Your task to perform on an android device: Open calendar and show me the second week of next month Image 0: 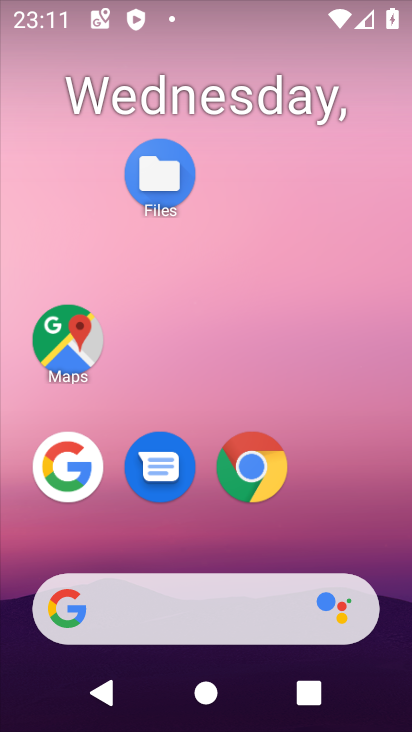
Step 0: drag from (186, 568) to (264, 99)
Your task to perform on an android device: Open calendar and show me the second week of next month Image 1: 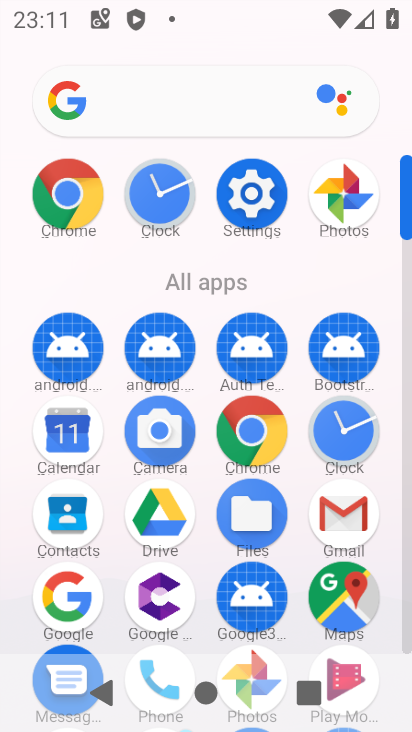
Step 1: click (75, 416)
Your task to perform on an android device: Open calendar and show me the second week of next month Image 2: 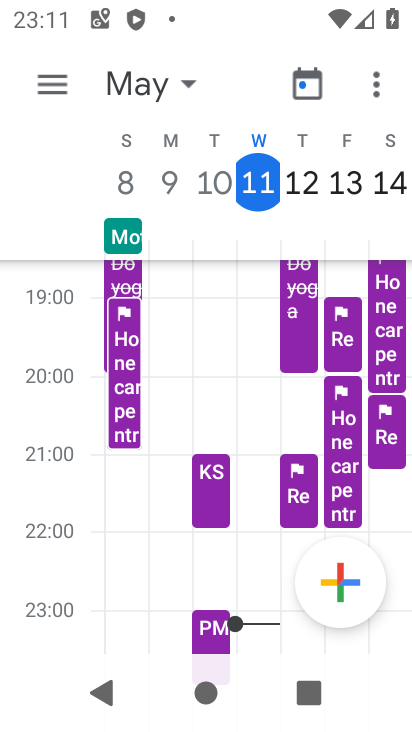
Step 2: task complete